Your task to perform on an android device: Do I have any events today? Image 0: 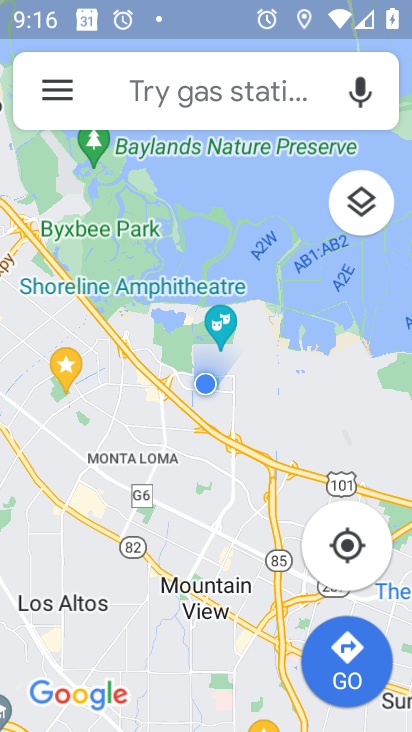
Step 0: press back button
Your task to perform on an android device: Do I have any events today? Image 1: 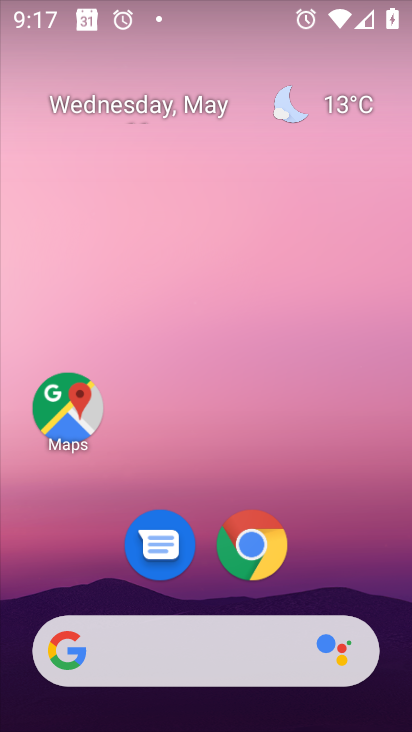
Step 1: drag from (330, 541) to (195, 16)
Your task to perform on an android device: Do I have any events today? Image 2: 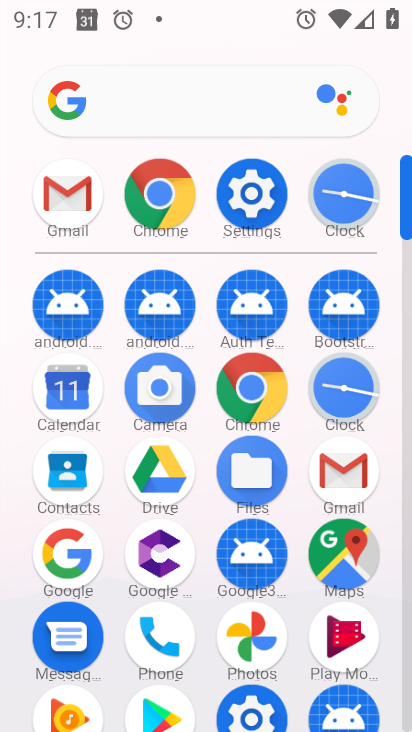
Step 2: drag from (6, 586) to (10, 327)
Your task to perform on an android device: Do I have any events today? Image 3: 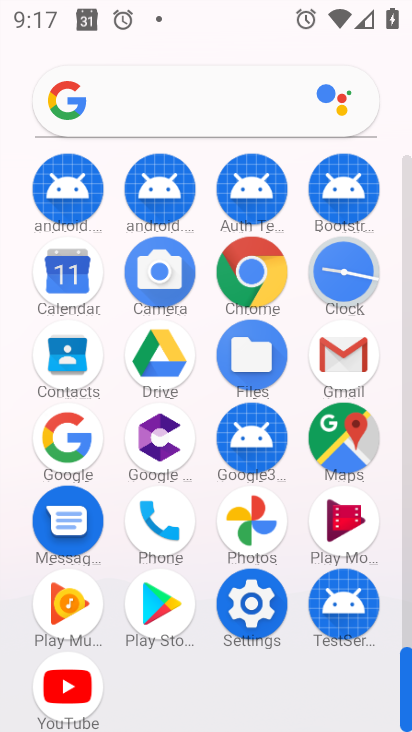
Step 3: click (69, 263)
Your task to perform on an android device: Do I have any events today? Image 4: 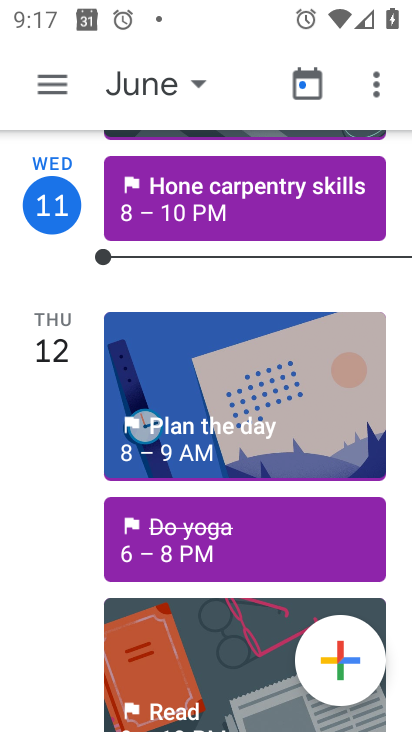
Step 4: click (62, 84)
Your task to perform on an android device: Do I have any events today? Image 5: 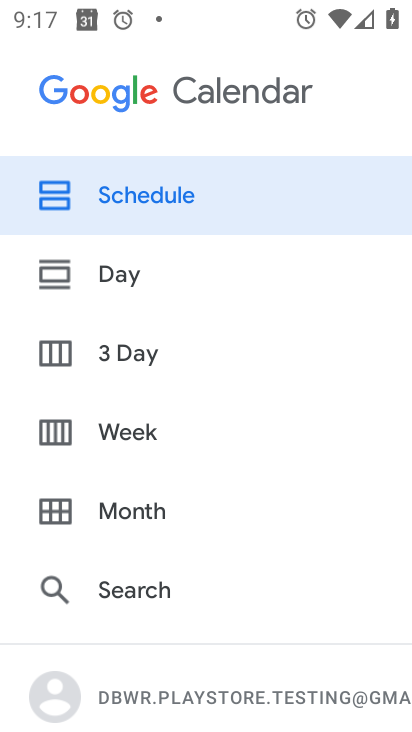
Step 5: drag from (211, 624) to (202, 189)
Your task to perform on an android device: Do I have any events today? Image 6: 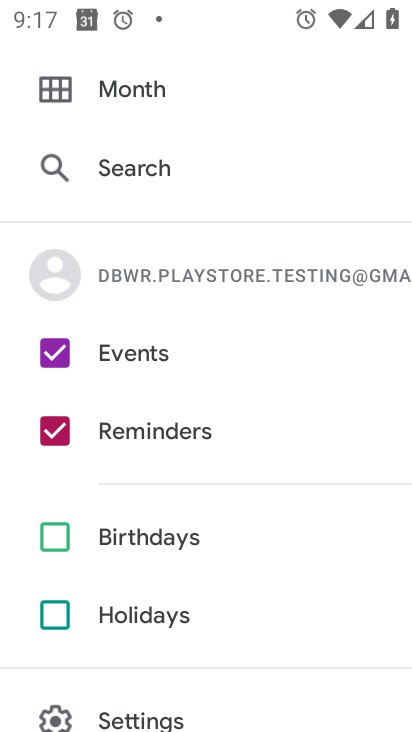
Step 6: drag from (179, 525) to (176, 321)
Your task to perform on an android device: Do I have any events today? Image 7: 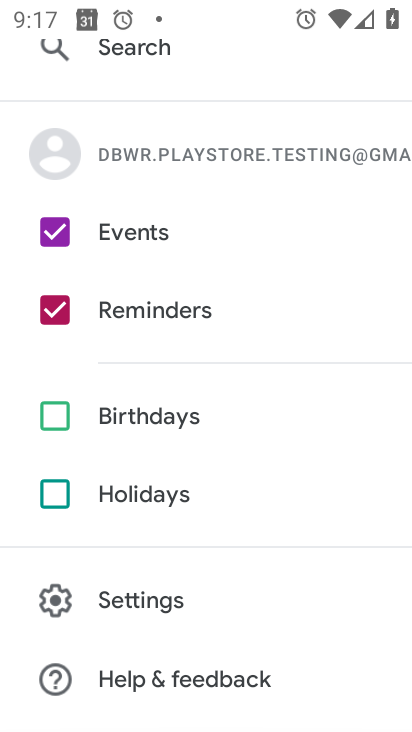
Step 7: drag from (220, 202) to (267, 632)
Your task to perform on an android device: Do I have any events today? Image 8: 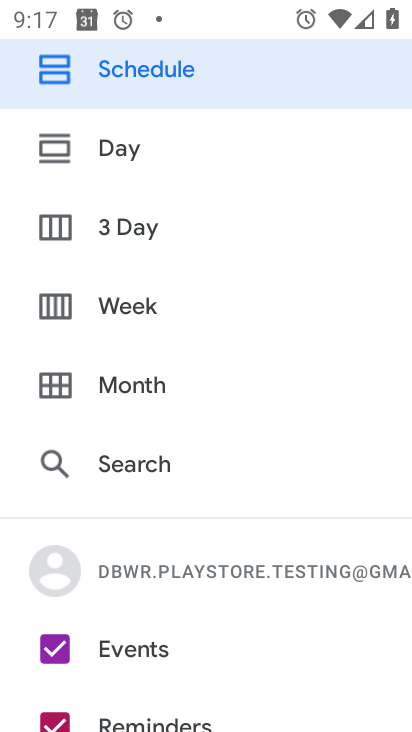
Step 8: drag from (248, 218) to (245, 519)
Your task to perform on an android device: Do I have any events today? Image 9: 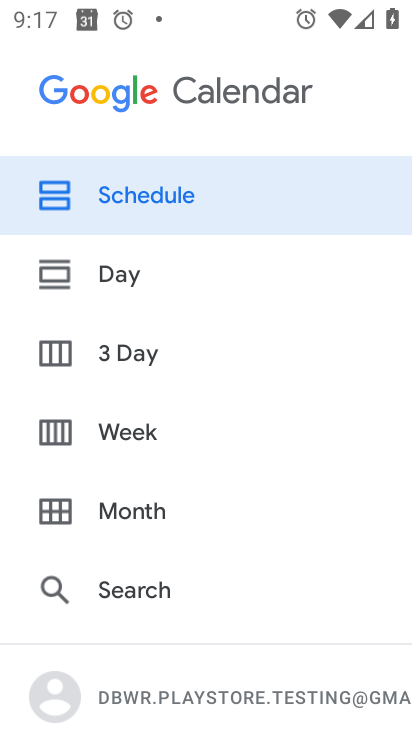
Step 9: click (134, 279)
Your task to perform on an android device: Do I have any events today? Image 10: 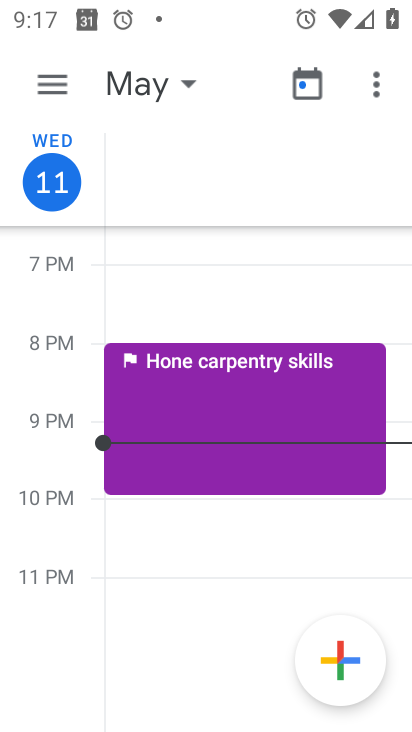
Step 10: task complete